Your task to perform on an android device: change the clock style Image 0: 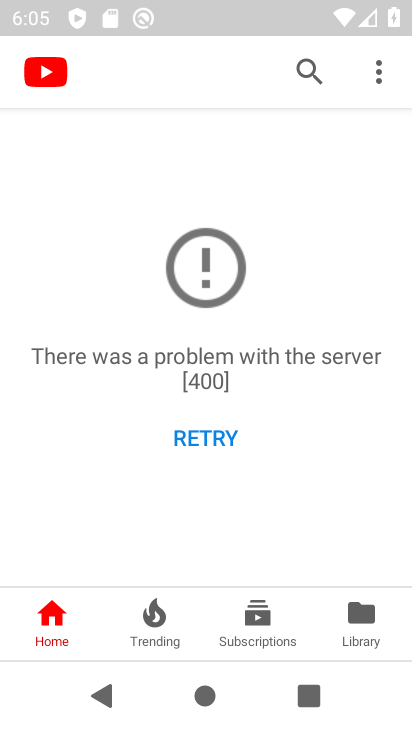
Step 0: press home button
Your task to perform on an android device: change the clock style Image 1: 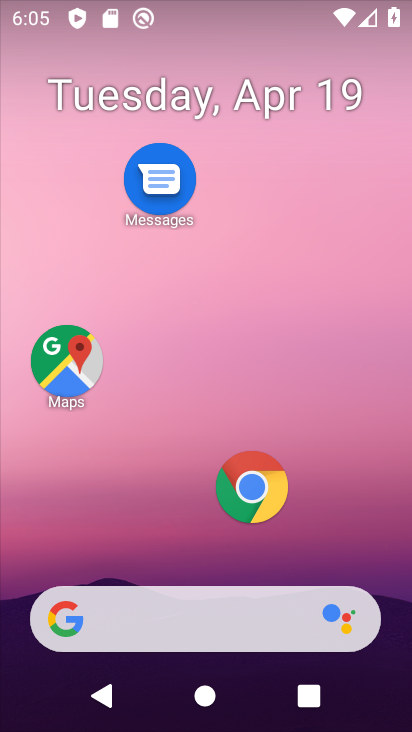
Step 1: drag from (206, 549) to (212, 15)
Your task to perform on an android device: change the clock style Image 2: 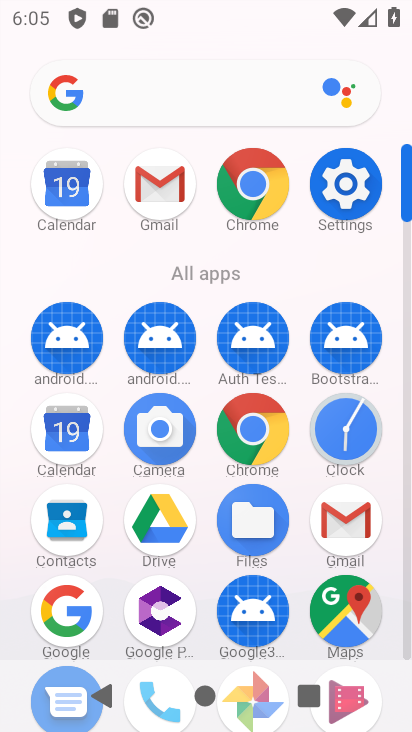
Step 2: click (344, 424)
Your task to perform on an android device: change the clock style Image 3: 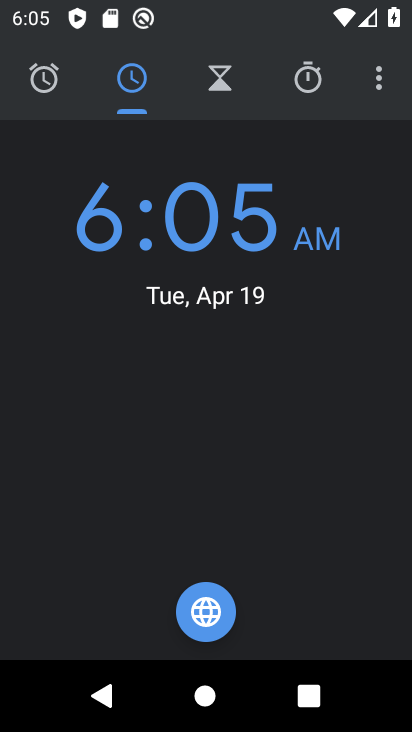
Step 3: click (382, 81)
Your task to perform on an android device: change the clock style Image 4: 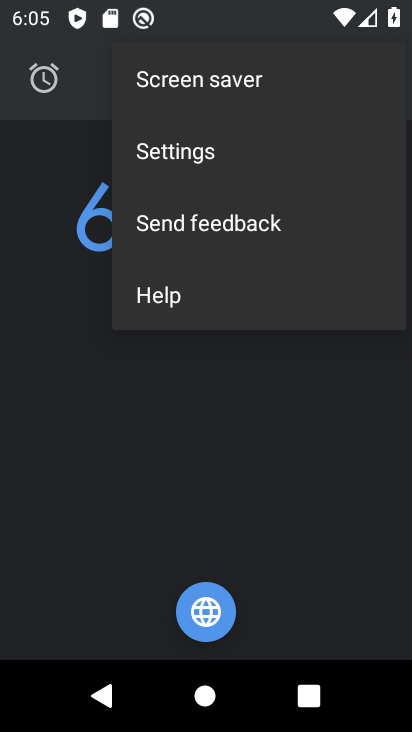
Step 4: click (228, 156)
Your task to perform on an android device: change the clock style Image 5: 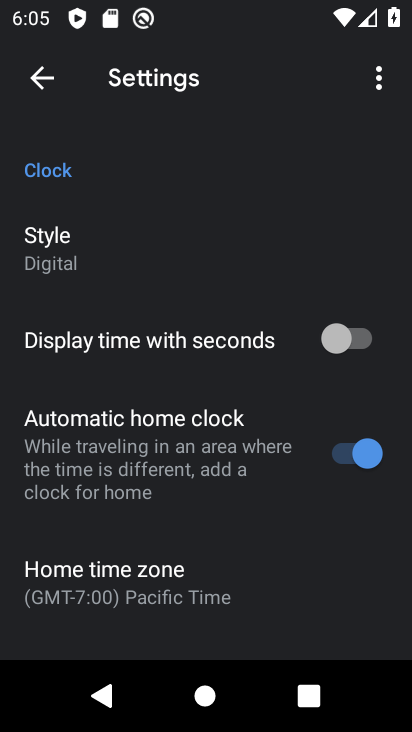
Step 5: click (94, 249)
Your task to perform on an android device: change the clock style Image 6: 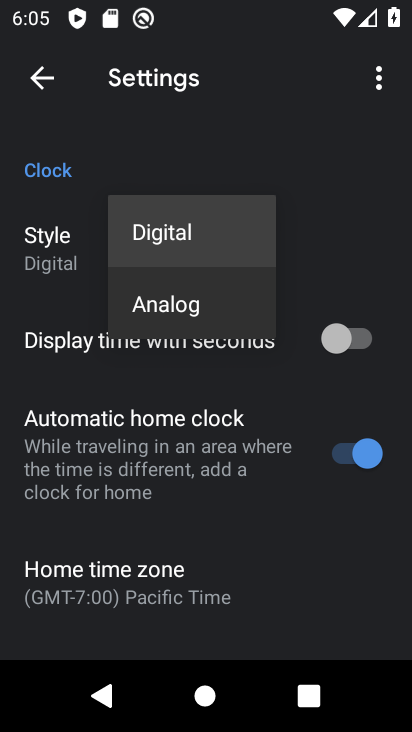
Step 6: click (209, 301)
Your task to perform on an android device: change the clock style Image 7: 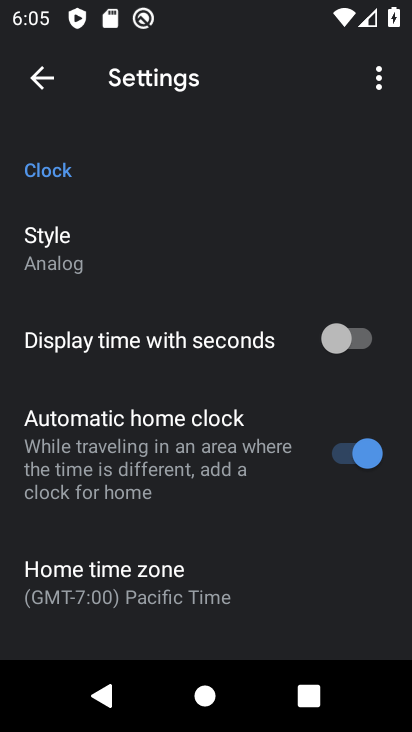
Step 7: task complete